Your task to perform on an android device: turn on showing notifications on the lock screen Image 0: 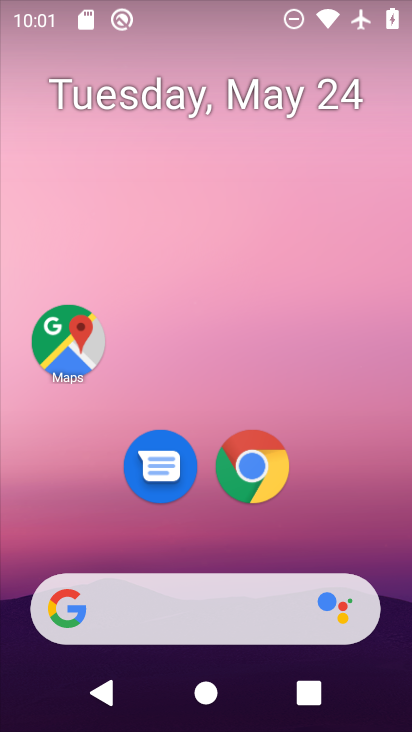
Step 0: drag from (249, 518) to (248, 0)
Your task to perform on an android device: turn on showing notifications on the lock screen Image 1: 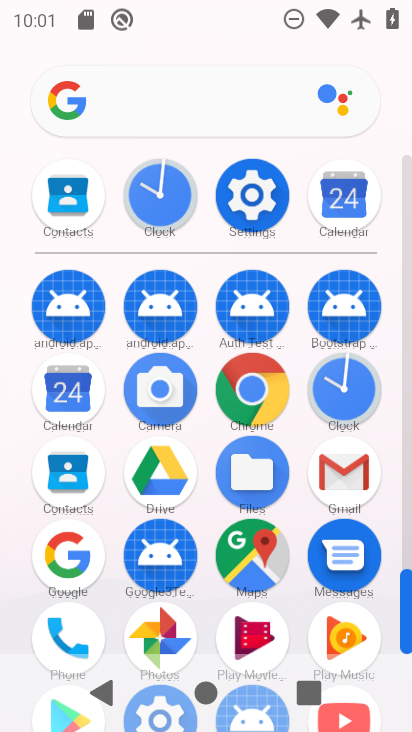
Step 1: click (250, 198)
Your task to perform on an android device: turn on showing notifications on the lock screen Image 2: 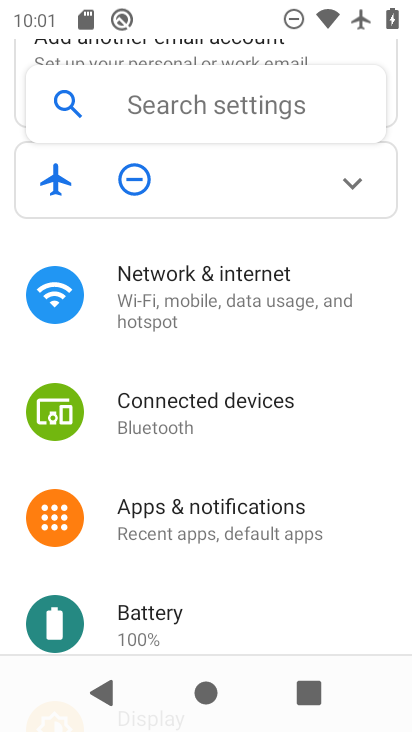
Step 2: click (238, 515)
Your task to perform on an android device: turn on showing notifications on the lock screen Image 3: 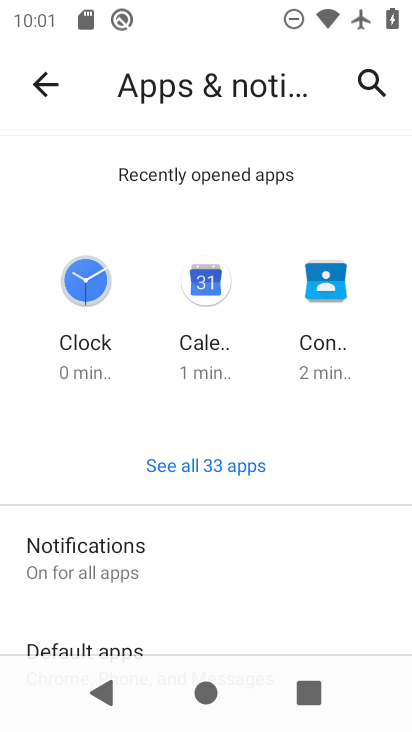
Step 3: click (111, 556)
Your task to perform on an android device: turn on showing notifications on the lock screen Image 4: 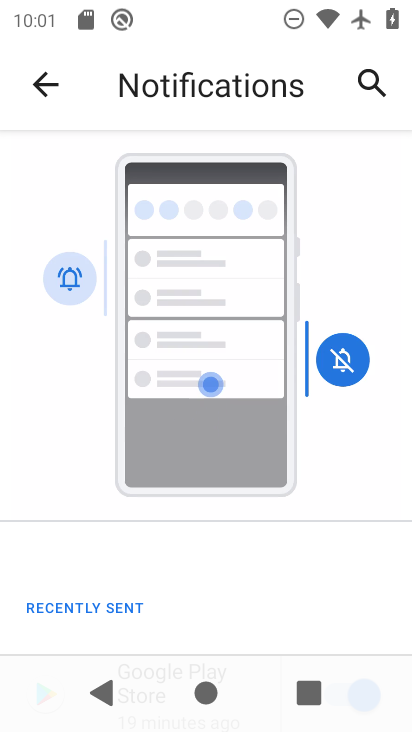
Step 4: drag from (208, 474) to (219, 101)
Your task to perform on an android device: turn on showing notifications on the lock screen Image 5: 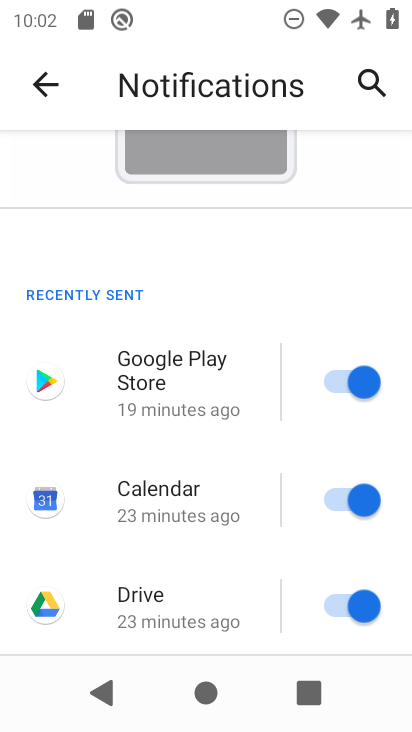
Step 5: drag from (190, 568) to (215, 46)
Your task to perform on an android device: turn on showing notifications on the lock screen Image 6: 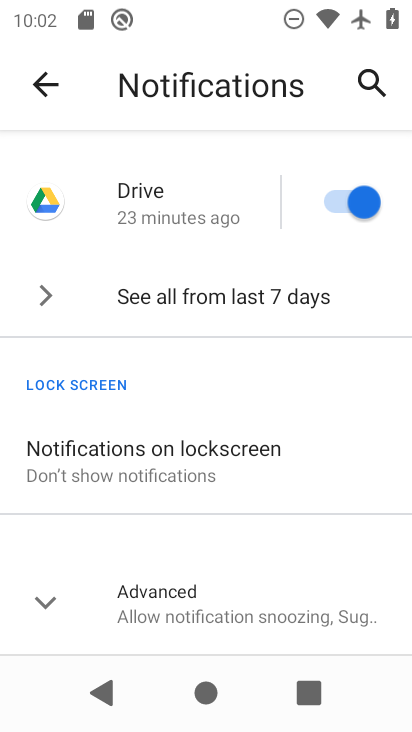
Step 6: click (126, 450)
Your task to perform on an android device: turn on showing notifications on the lock screen Image 7: 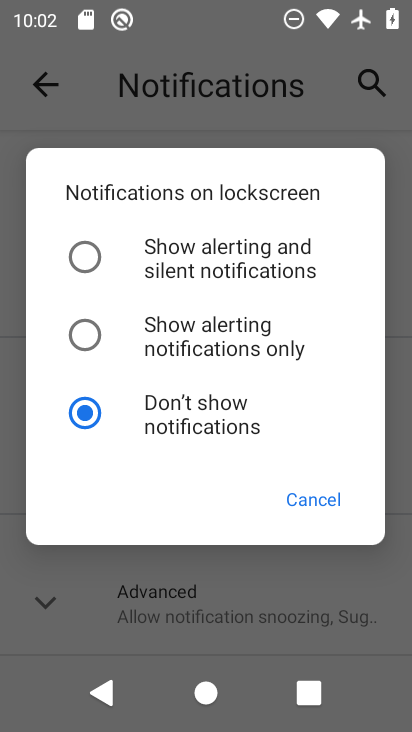
Step 7: click (205, 275)
Your task to perform on an android device: turn on showing notifications on the lock screen Image 8: 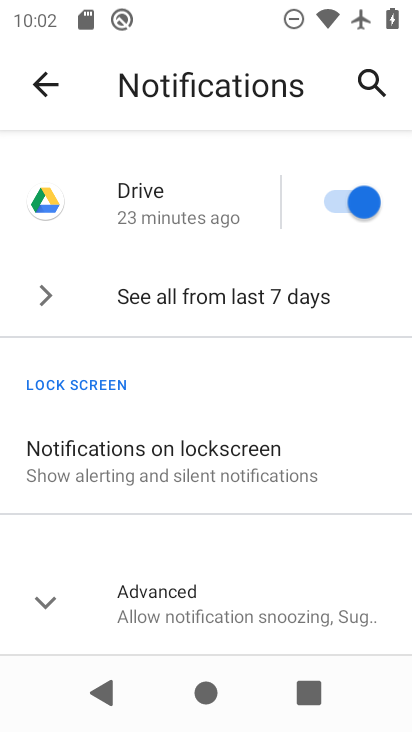
Step 8: task complete